Your task to perform on an android device: change text size in settings app Image 0: 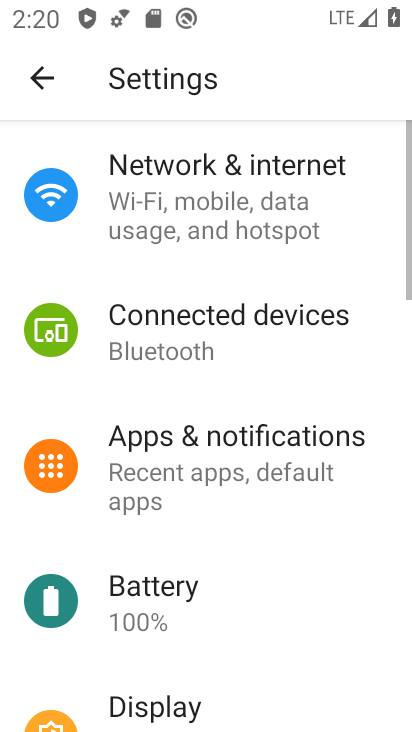
Step 0: drag from (212, 563) to (175, 209)
Your task to perform on an android device: change text size in settings app Image 1: 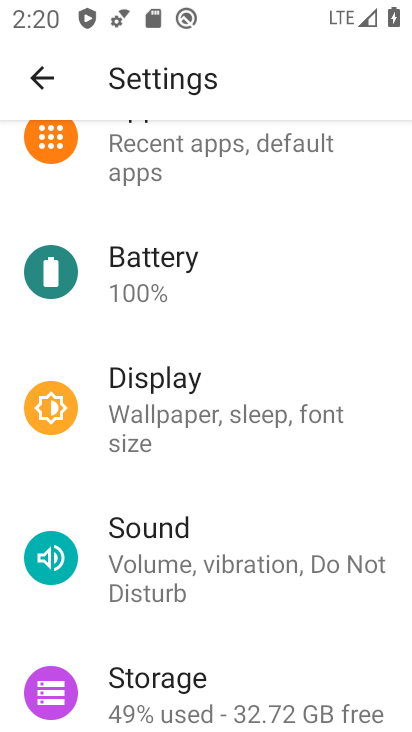
Step 1: click (178, 377)
Your task to perform on an android device: change text size in settings app Image 2: 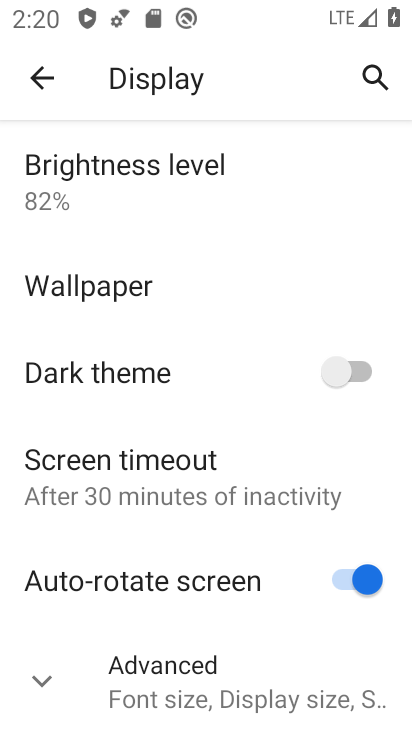
Step 2: click (156, 674)
Your task to perform on an android device: change text size in settings app Image 3: 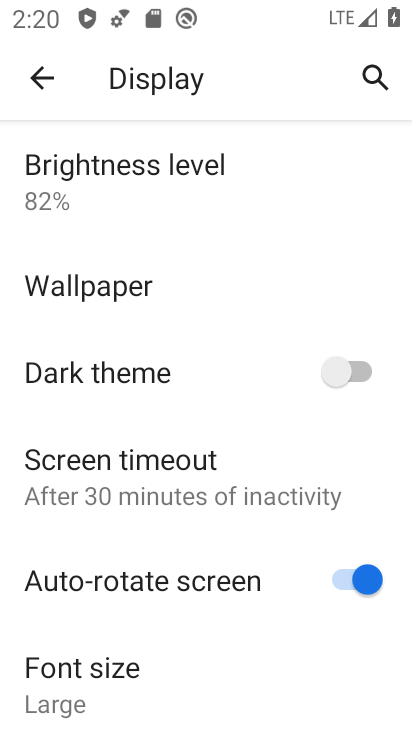
Step 3: click (134, 659)
Your task to perform on an android device: change text size in settings app Image 4: 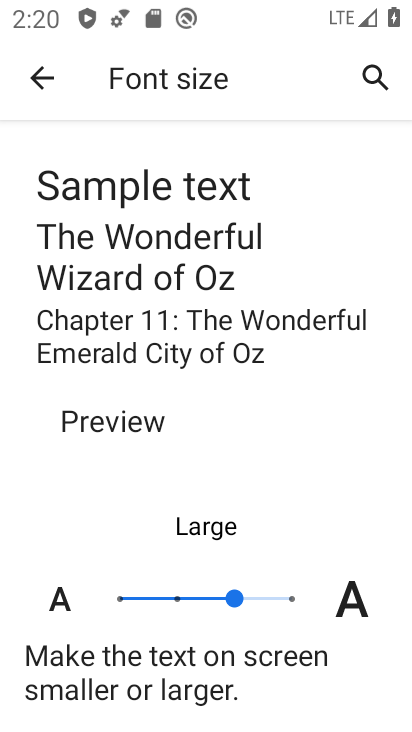
Step 4: click (186, 598)
Your task to perform on an android device: change text size in settings app Image 5: 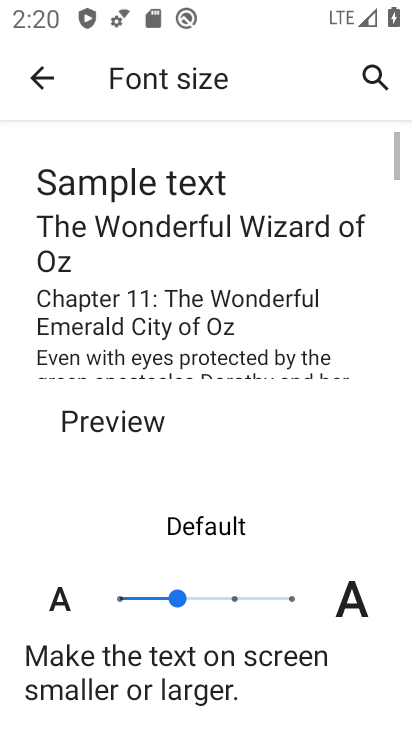
Step 5: task complete